Your task to perform on an android device: show emergency info Image 0: 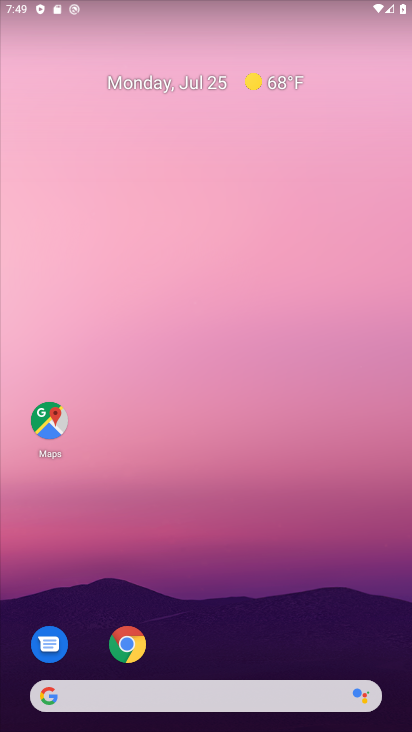
Step 0: click (165, 3)
Your task to perform on an android device: show emergency info Image 1: 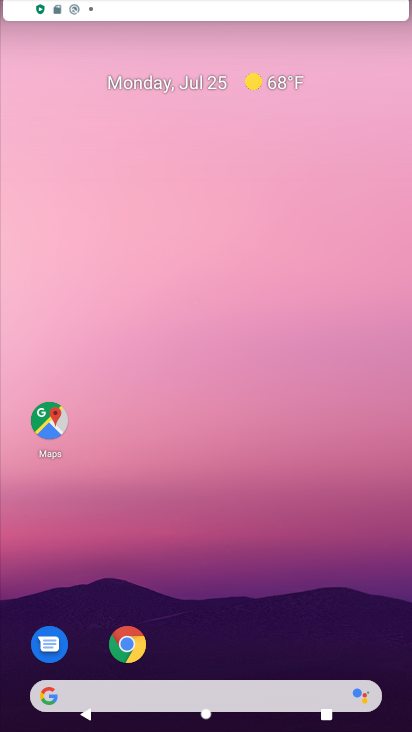
Step 1: drag from (193, 581) to (184, 106)
Your task to perform on an android device: show emergency info Image 2: 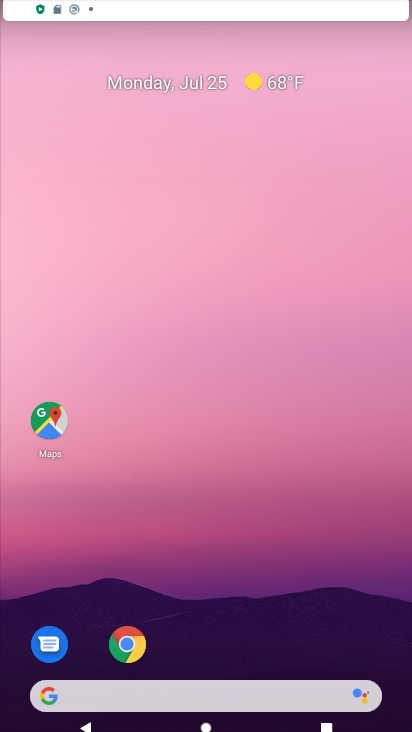
Step 2: click (263, 149)
Your task to perform on an android device: show emergency info Image 3: 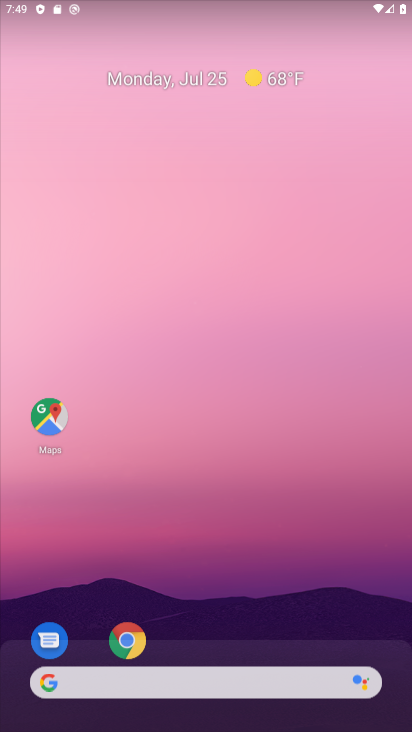
Step 3: drag from (296, 642) to (242, 132)
Your task to perform on an android device: show emergency info Image 4: 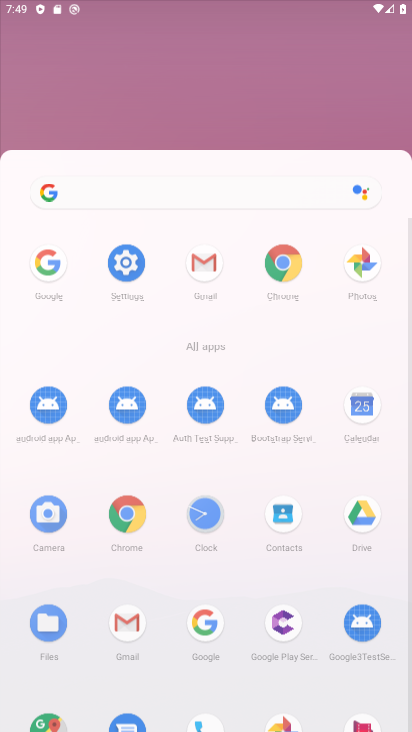
Step 4: drag from (207, 433) to (170, 10)
Your task to perform on an android device: show emergency info Image 5: 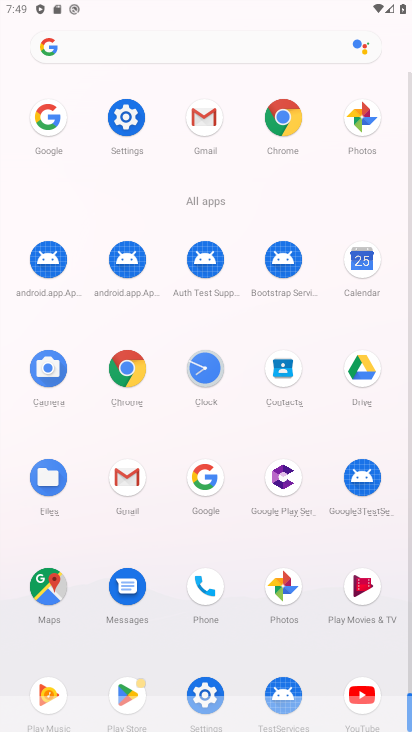
Step 5: drag from (164, 360) to (163, 8)
Your task to perform on an android device: show emergency info Image 6: 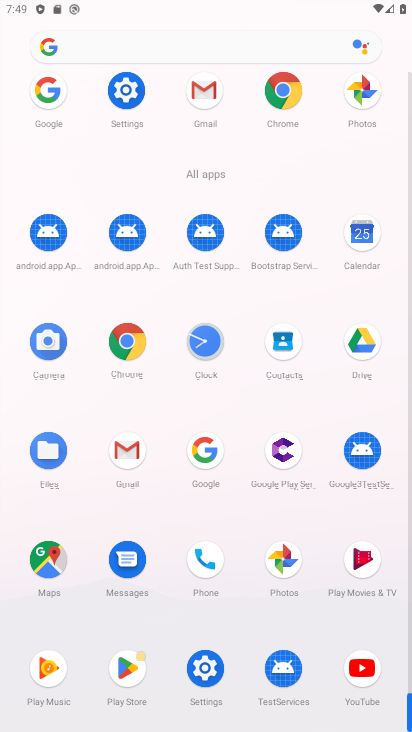
Step 6: click (202, 672)
Your task to perform on an android device: show emergency info Image 7: 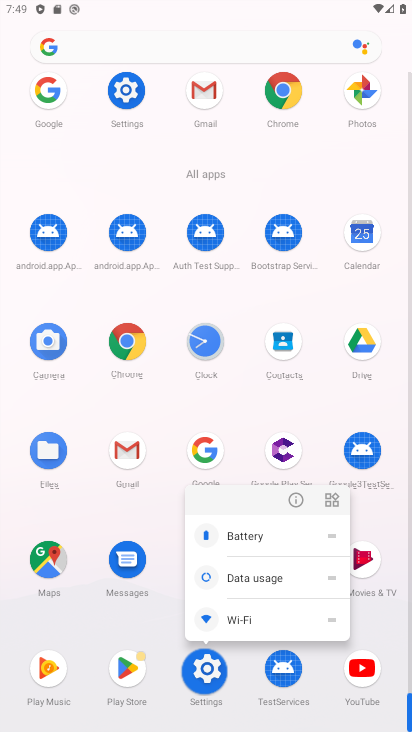
Step 7: click (202, 676)
Your task to perform on an android device: show emergency info Image 8: 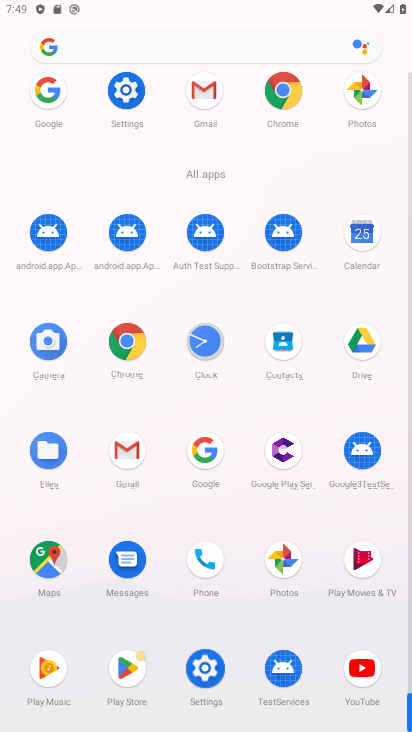
Step 8: click (200, 669)
Your task to perform on an android device: show emergency info Image 9: 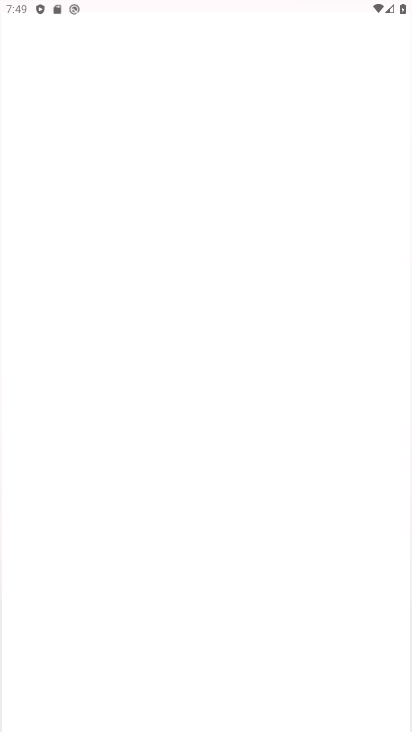
Step 9: click (203, 671)
Your task to perform on an android device: show emergency info Image 10: 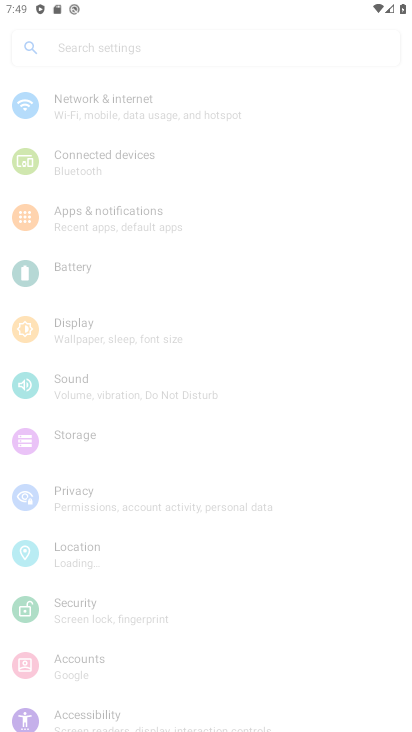
Step 10: click (207, 673)
Your task to perform on an android device: show emergency info Image 11: 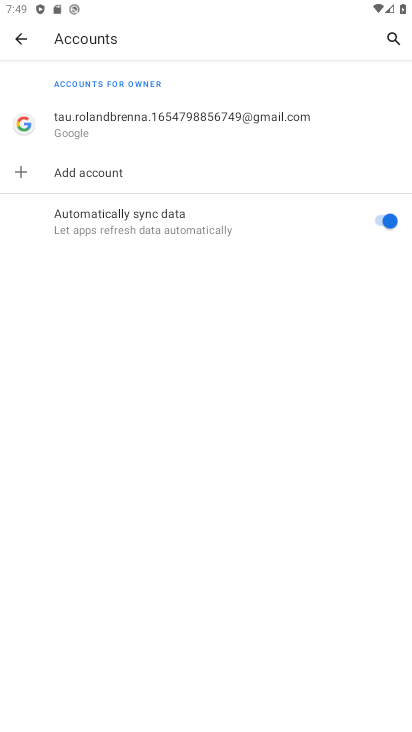
Step 11: drag from (130, 605) to (110, 153)
Your task to perform on an android device: show emergency info Image 12: 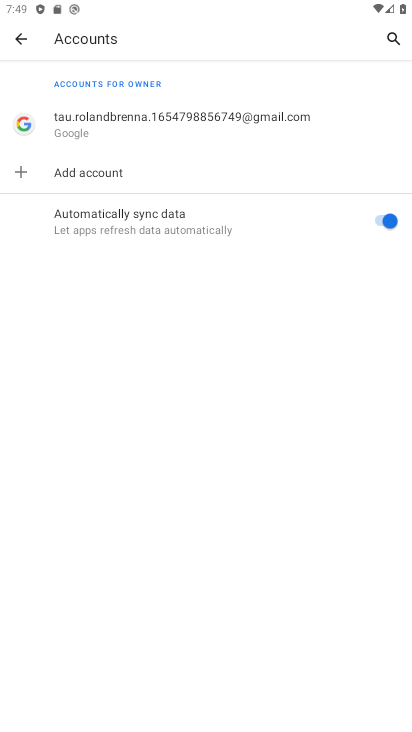
Step 12: click (17, 33)
Your task to perform on an android device: show emergency info Image 13: 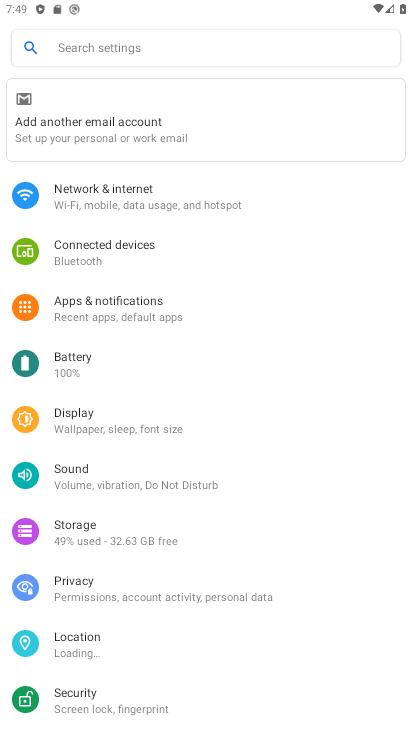
Step 13: drag from (179, 449) to (179, 106)
Your task to perform on an android device: show emergency info Image 14: 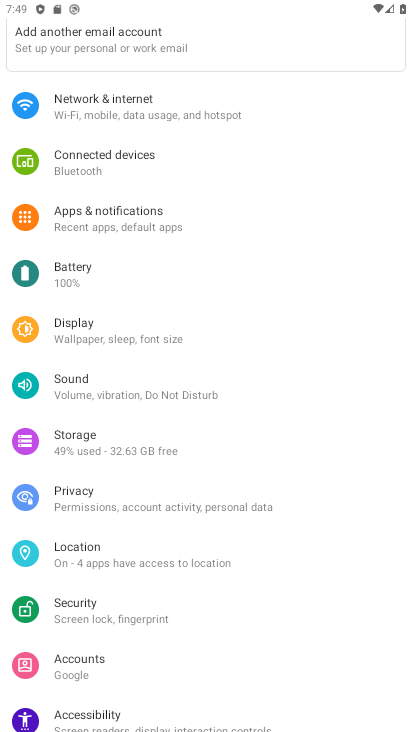
Step 14: drag from (182, 579) to (180, 241)
Your task to perform on an android device: show emergency info Image 15: 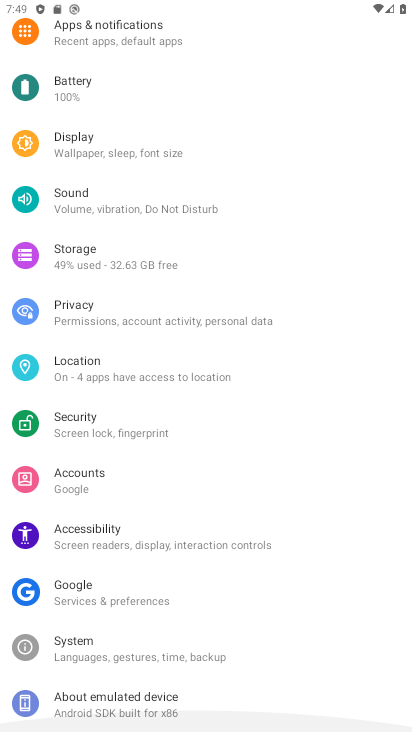
Step 15: drag from (178, 531) to (178, 240)
Your task to perform on an android device: show emergency info Image 16: 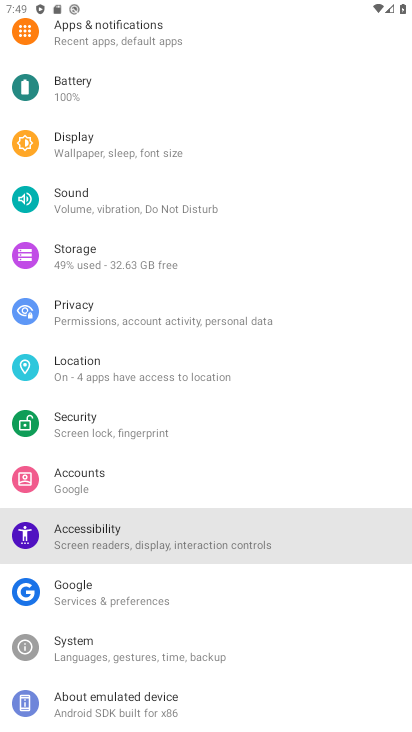
Step 16: drag from (203, 485) to (203, 197)
Your task to perform on an android device: show emergency info Image 17: 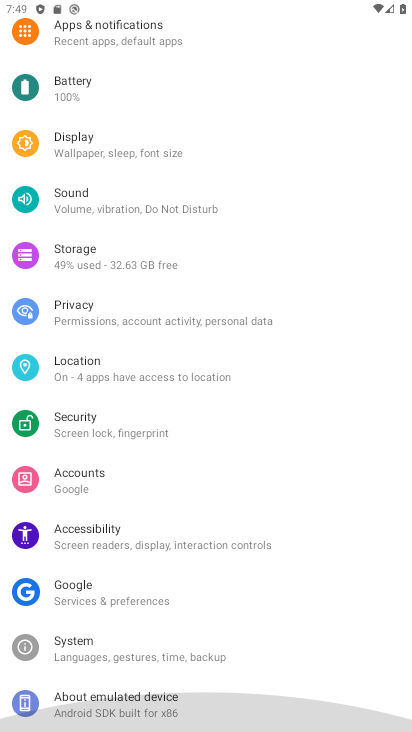
Step 17: drag from (203, 451) to (197, 133)
Your task to perform on an android device: show emergency info Image 18: 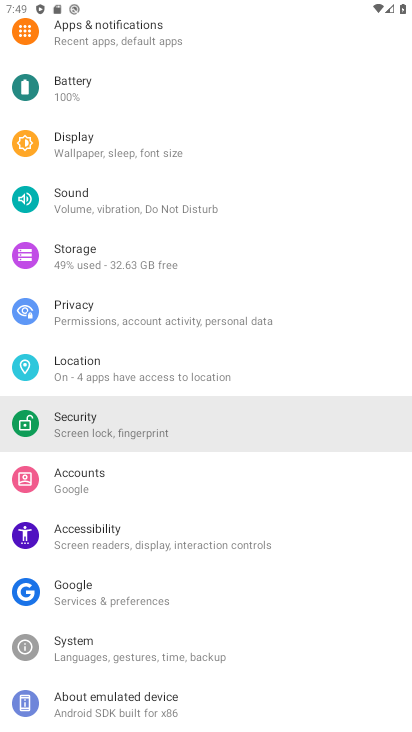
Step 18: drag from (197, 501) to (193, 182)
Your task to perform on an android device: show emergency info Image 19: 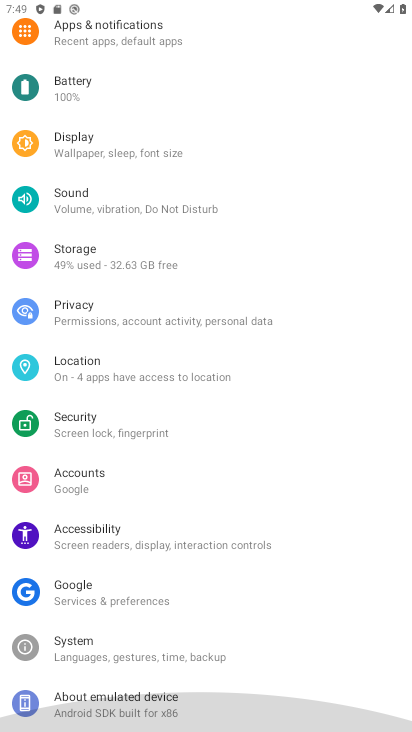
Step 19: drag from (178, 556) to (78, 140)
Your task to perform on an android device: show emergency info Image 20: 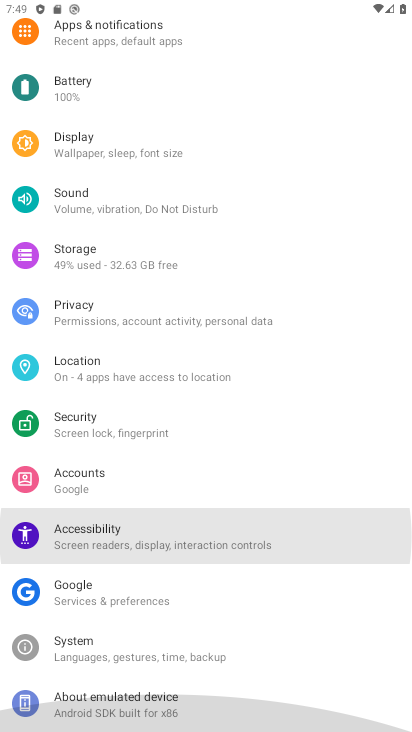
Step 20: drag from (72, 566) to (75, 167)
Your task to perform on an android device: show emergency info Image 21: 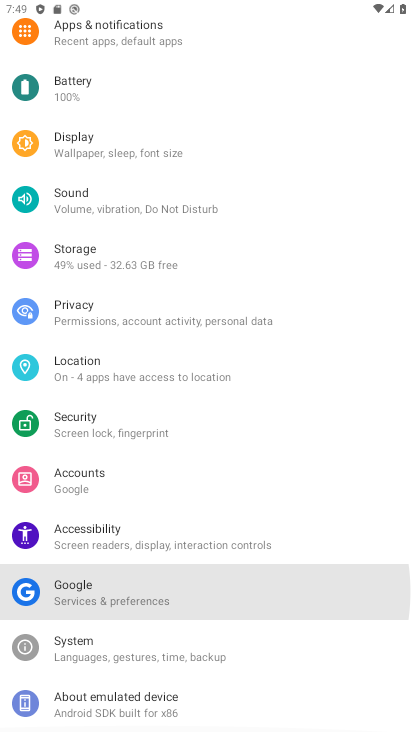
Step 21: drag from (101, 508) to (86, 263)
Your task to perform on an android device: show emergency info Image 22: 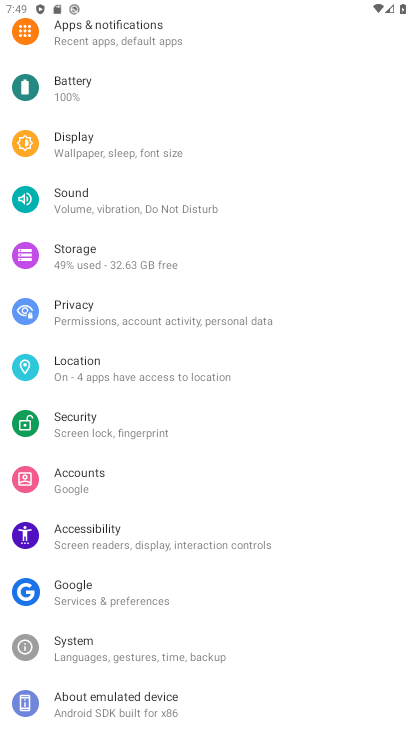
Step 22: click (103, 700)
Your task to perform on an android device: show emergency info Image 23: 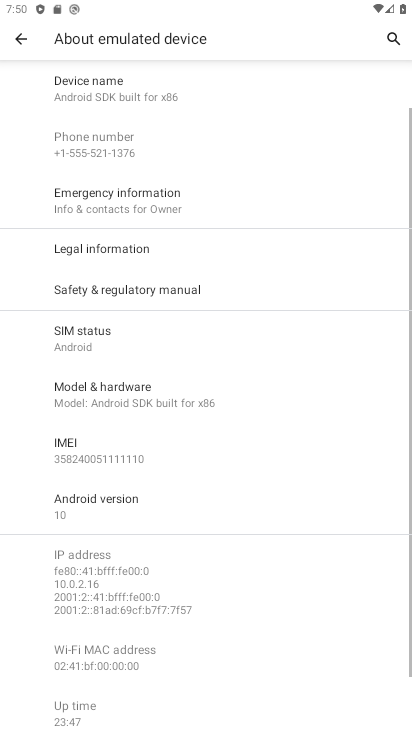
Step 23: click (115, 207)
Your task to perform on an android device: show emergency info Image 24: 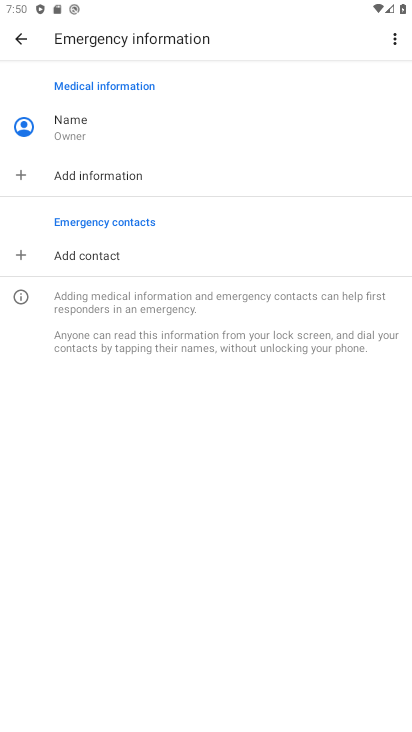
Step 24: task complete